Your task to perform on an android device: Open settings on Google Maps Image 0: 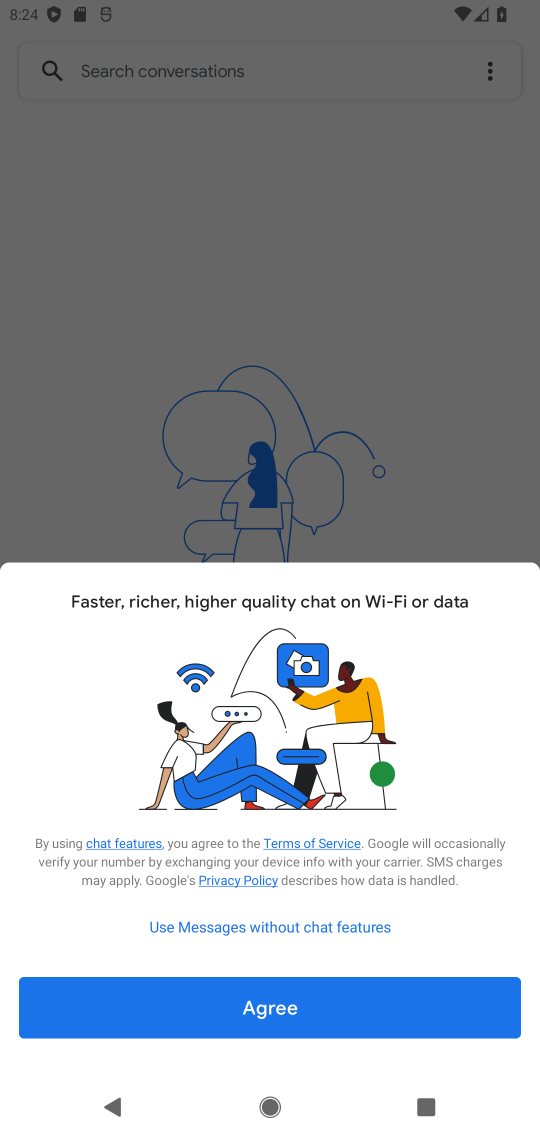
Step 0: press home button
Your task to perform on an android device: Open settings on Google Maps Image 1: 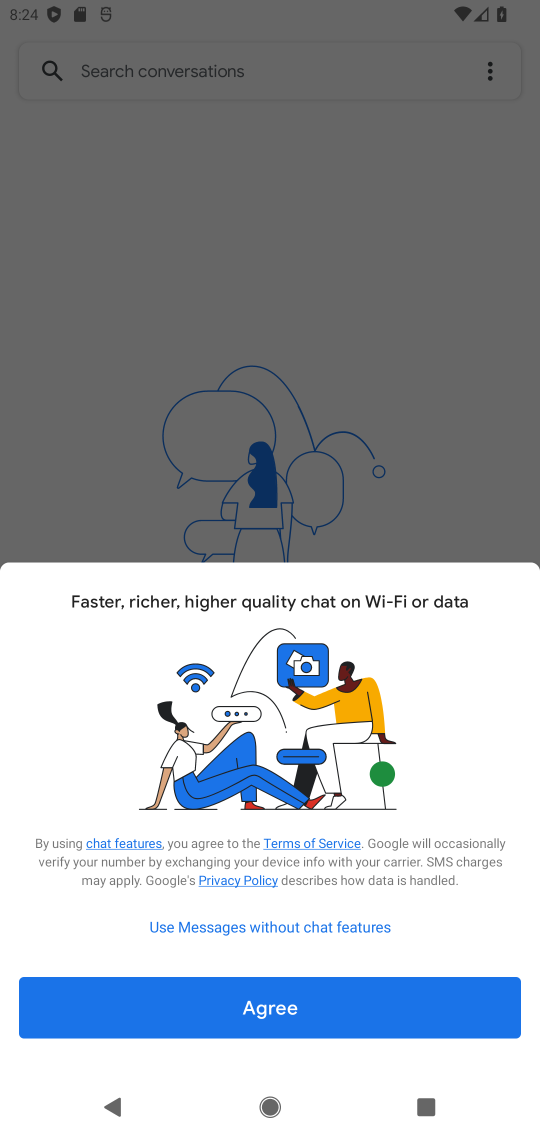
Step 1: press home button
Your task to perform on an android device: Open settings on Google Maps Image 2: 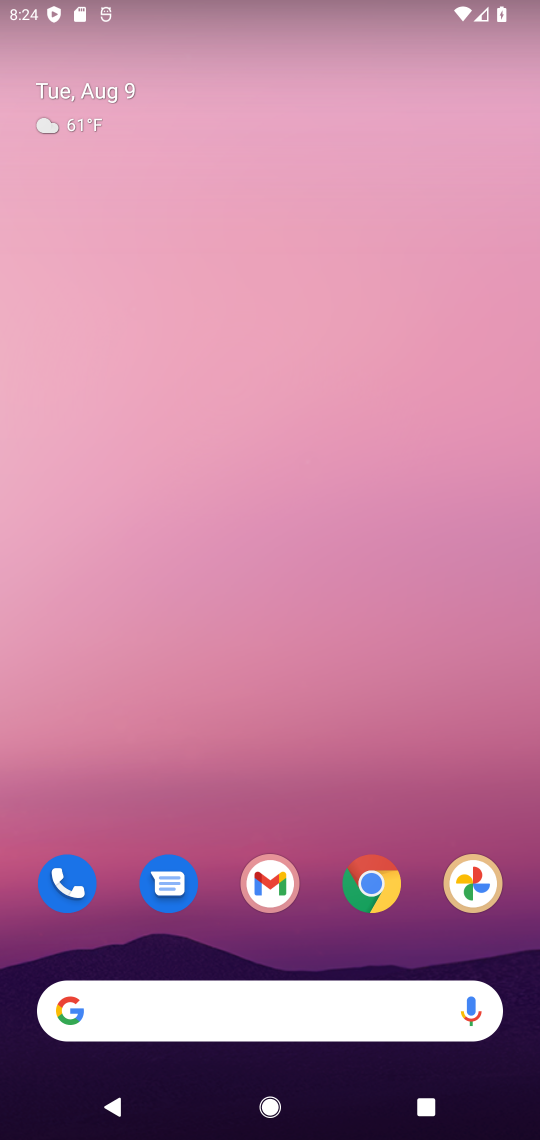
Step 2: drag from (300, 575) to (86, 37)
Your task to perform on an android device: Open settings on Google Maps Image 3: 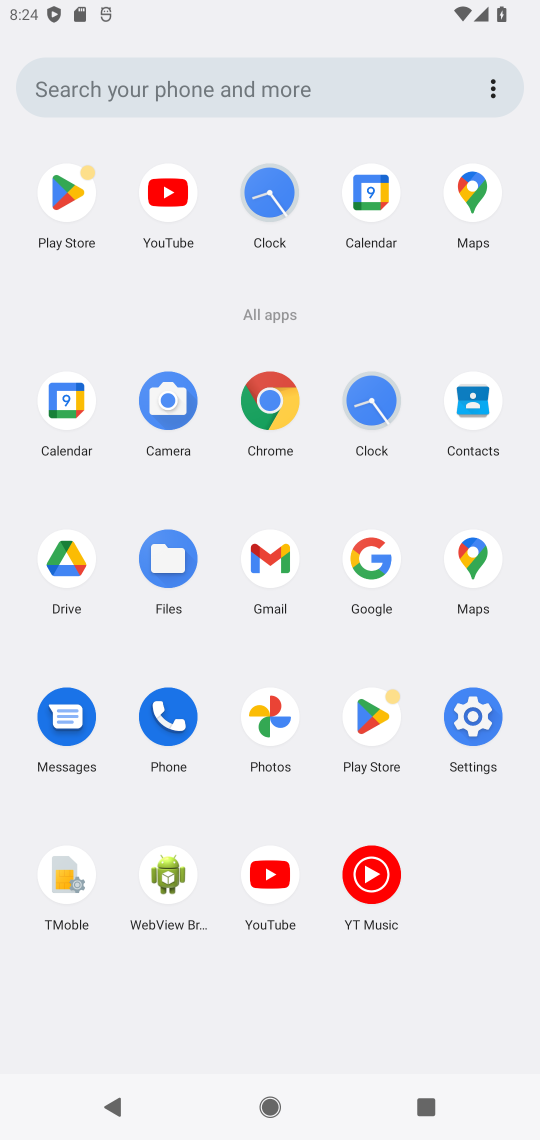
Step 3: click (484, 563)
Your task to perform on an android device: Open settings on Google Maps Image 4: 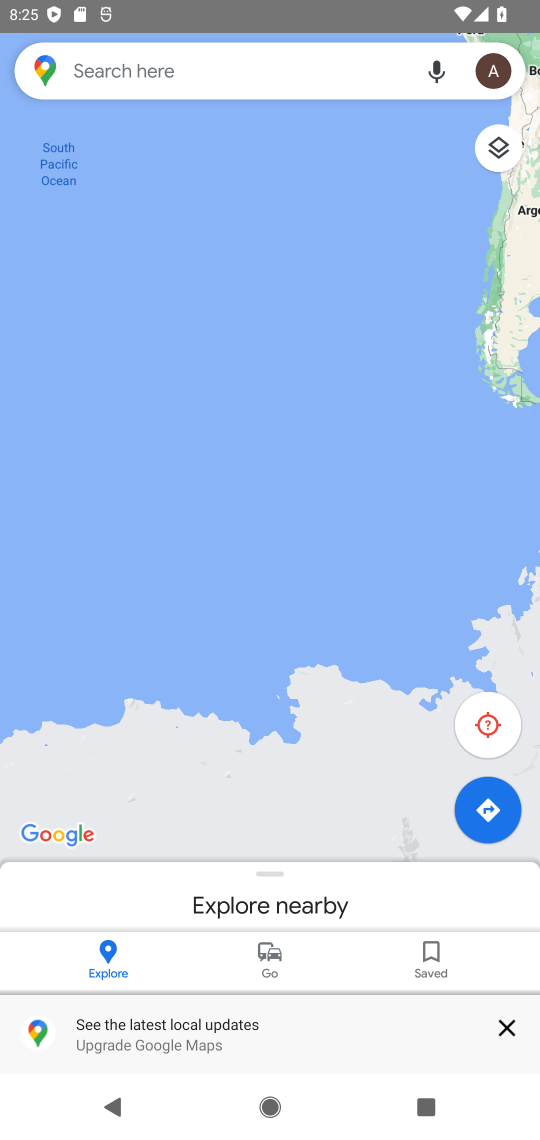
Step 4: click (499, 69)
Your task to perform on an android device: Open settings on Google Maps Image 5: 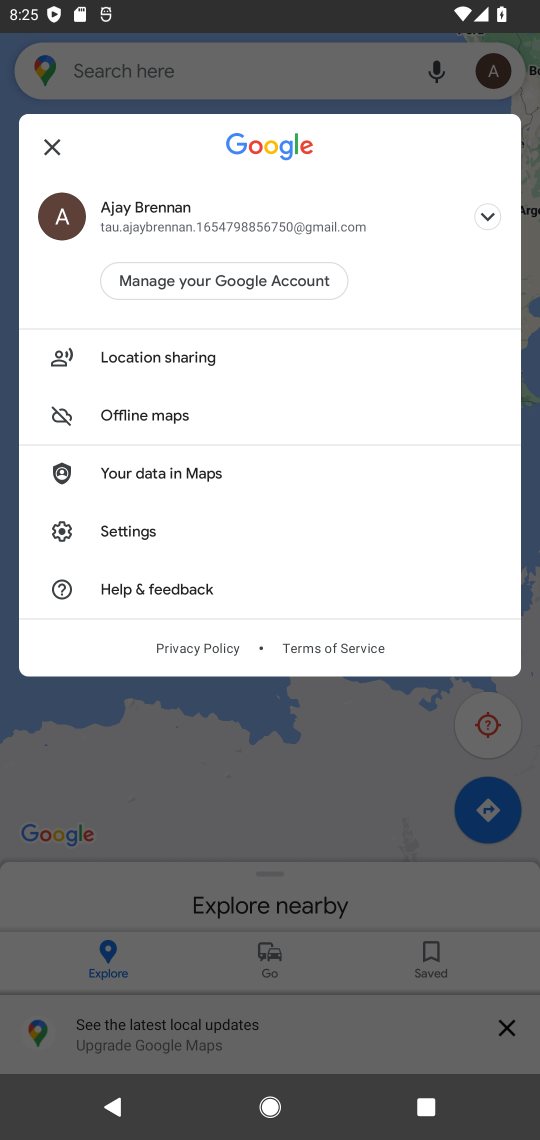
Step 5: click (144, 515)
Your task to perform on an android device: Open settings on Google Maps Image 6: 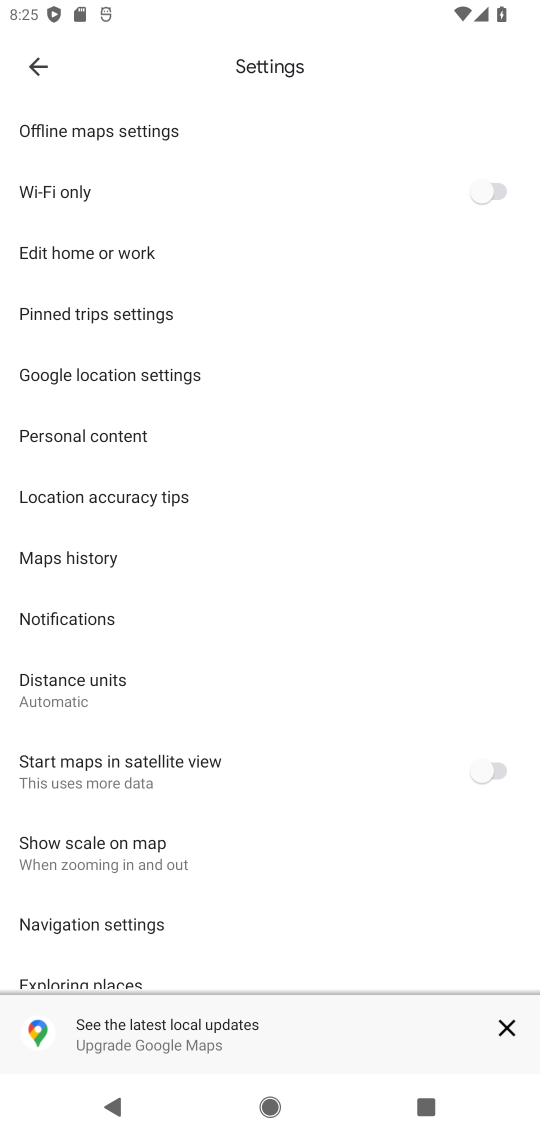
Step 6: task complete